Your task to perform on an android device: check data usage Image 0: 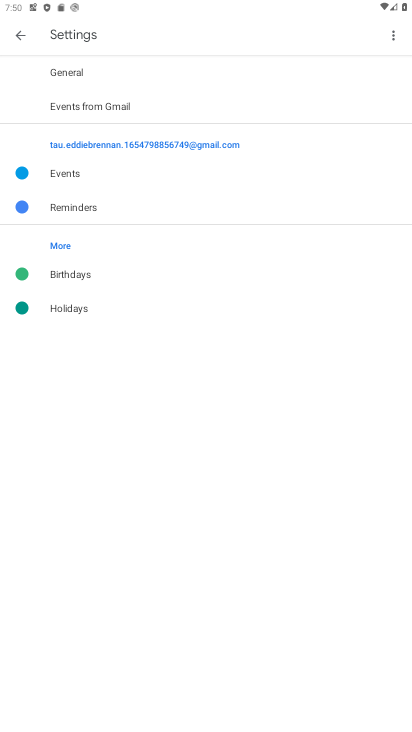
Step 0: press home button
Your task to perform on an android device: check data usage Image 1: 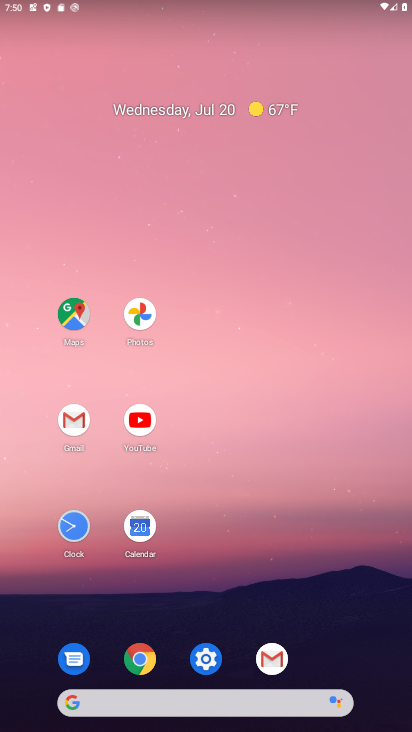
Step 1: click (212, 659)
Your task to perform on an android device: check data usage Image 2: 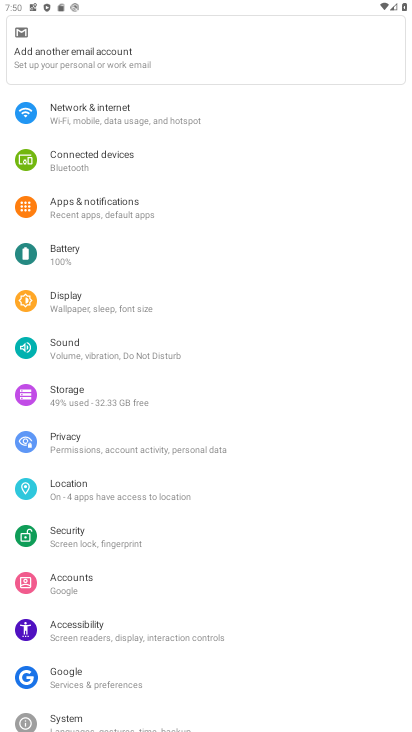
Step 2: click (93, 108)
Your task to perform on an android device: check data usage Image 3: 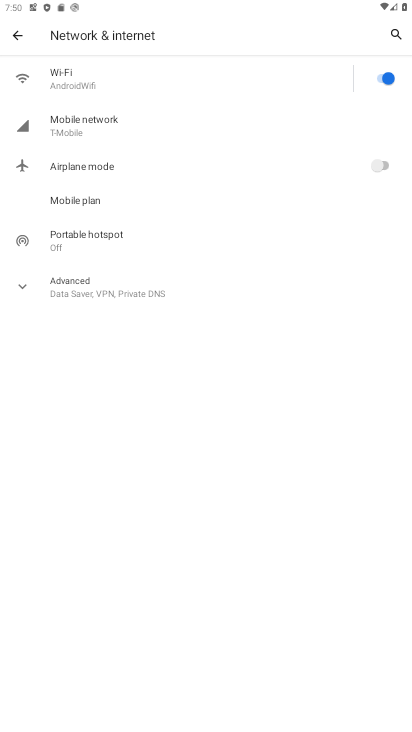
Step 3: click (81, 120)
Your task to perform on an android device: check data usage Image 4: 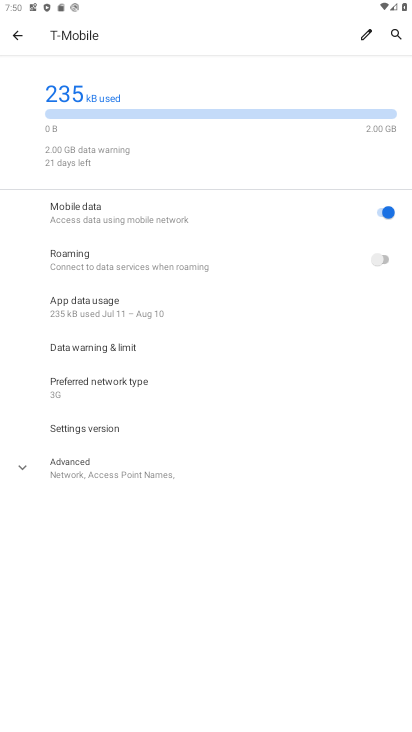
Step 4: task complete